Your task to perform on an android device: open a new tab in the chrome app Image 0: 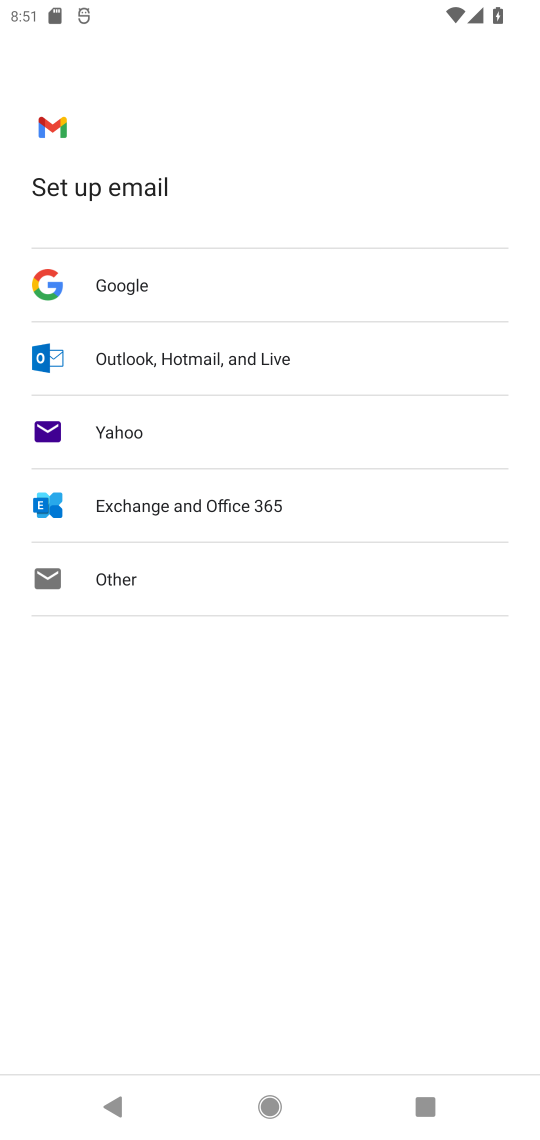
Step 0: press home button
Your task to perform on an android device: open a new tab in the chrome app Image 1: 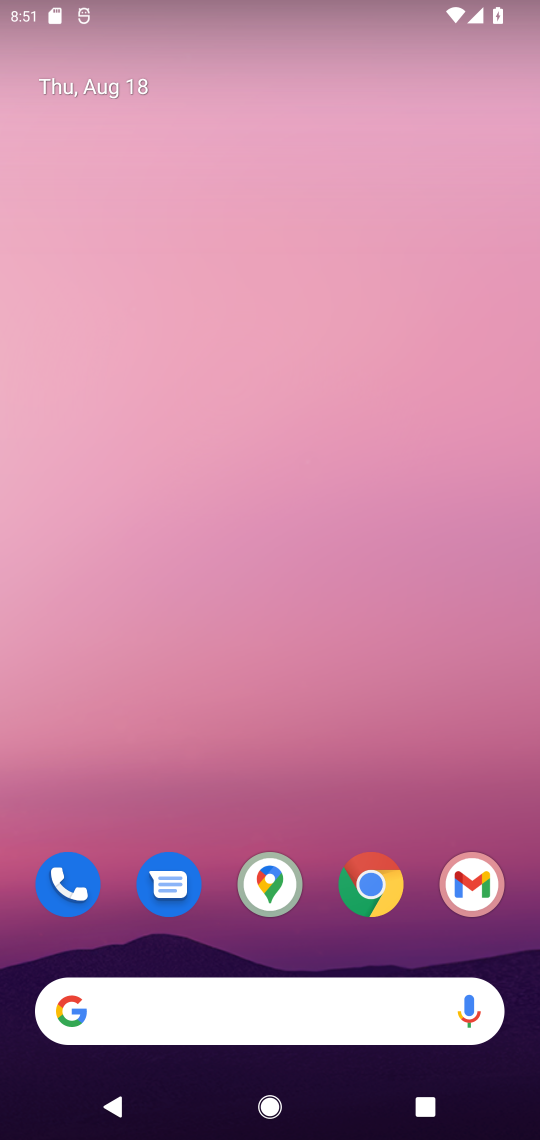
Step 1: click (376, 858)
Your task to perform on an android device: open a new tab in the chrome app Image 2: 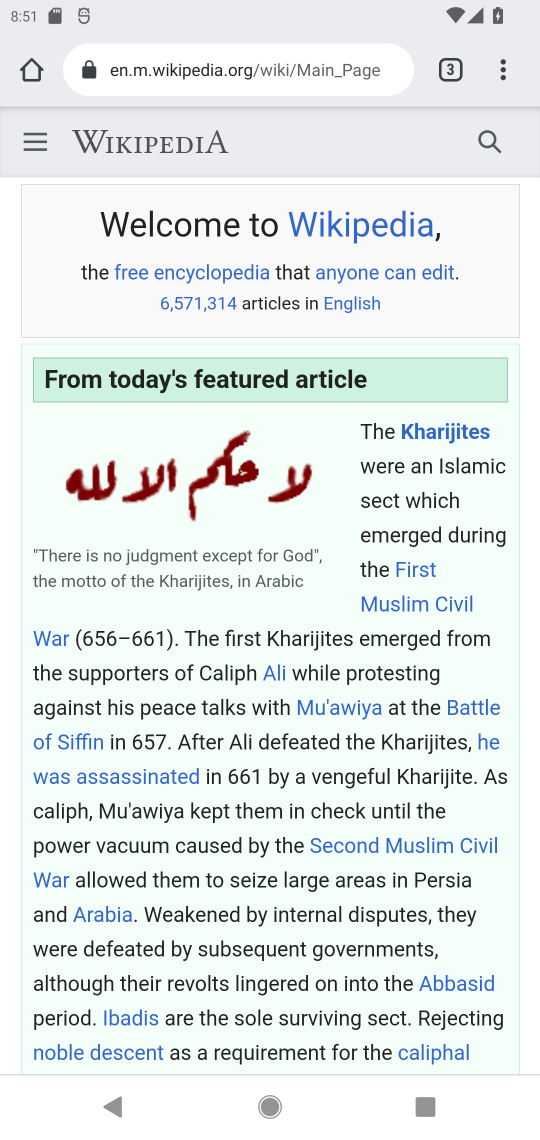
Step 2: click (514, 78)
Your task to perform on an android device: open a new tab in the chrome app Image 3: 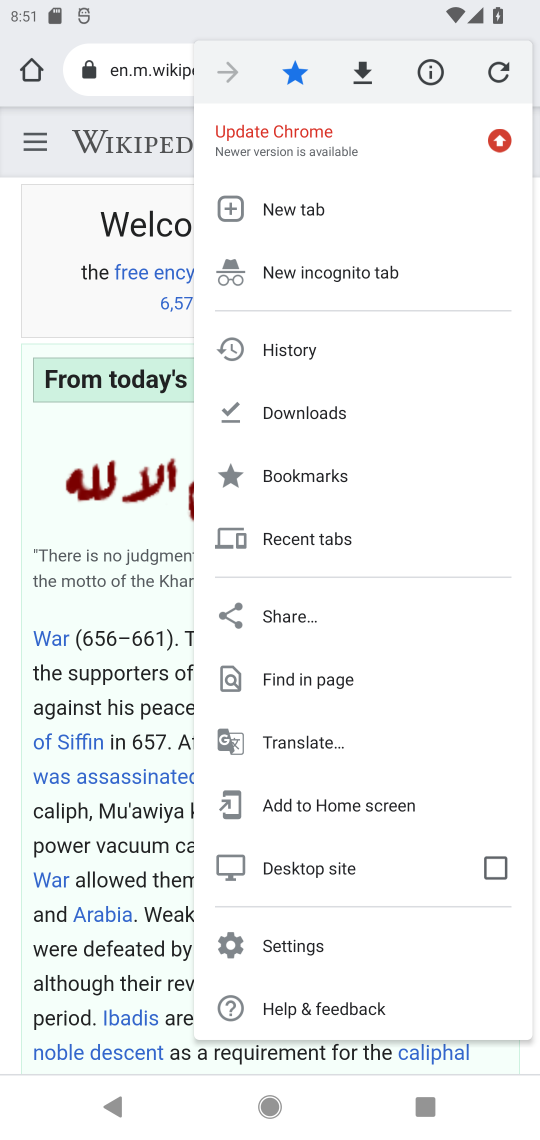
Step 3: click (278, 219)
Your task to perform on an android device: open a new tab in the chrome app Image 4: 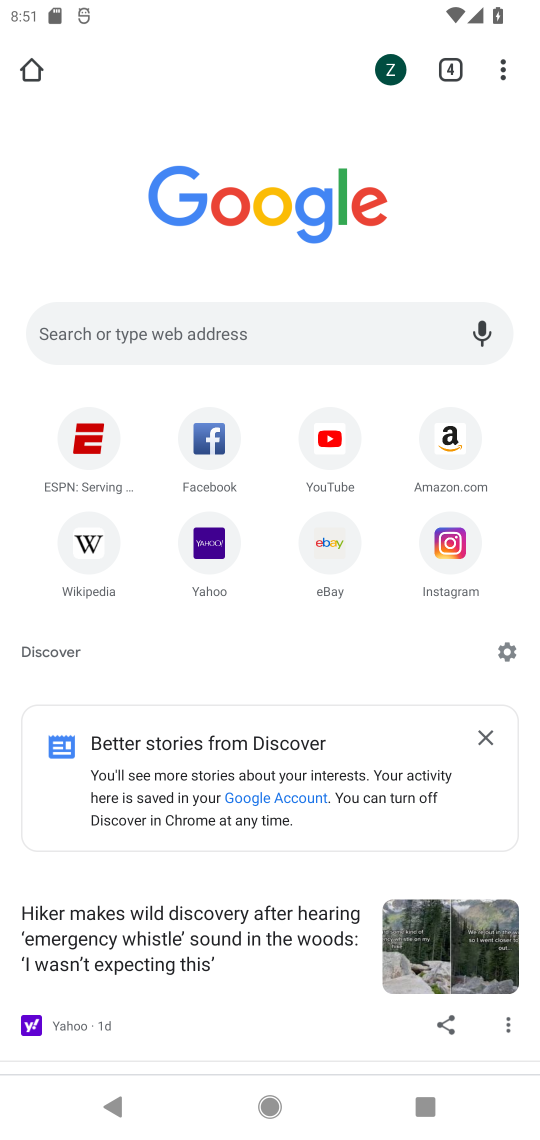
Step 4: task complete